Your task to perform on an android device: turn off notifications settings in the gmail app Image 0: 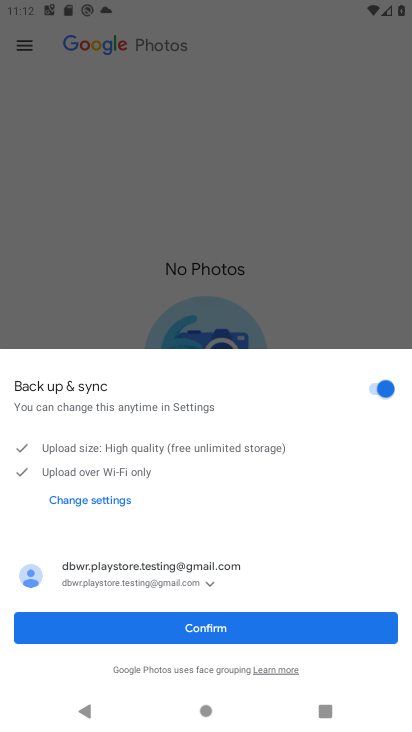
Step 0: click (235, 631)
Your task to perform on an android device: turn off notifications settings in the gmail app Image 1: 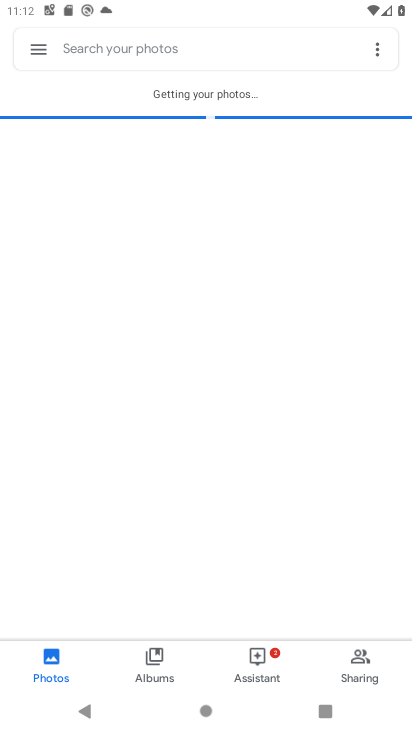
Step 1: click (33, 44)
Your task to perform on an android device: turn off notifications settings in the gmail app Image 2: 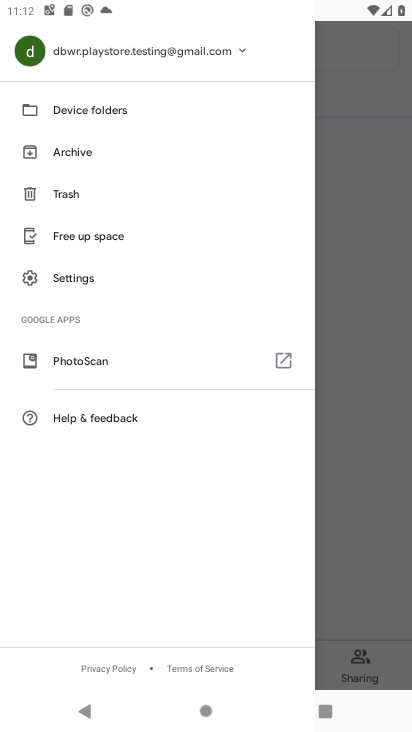
Step 2: click (99, 275)
Your task to perform on an android device: turn off notifications settings in the gmail app Image 3: 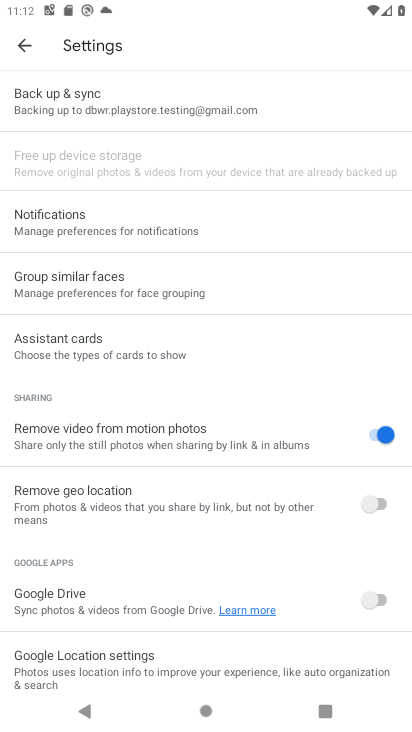
Step 3: click (86, 230)
Your task to perform on an android device: turn off notifications settings in the gmail app Image 4: 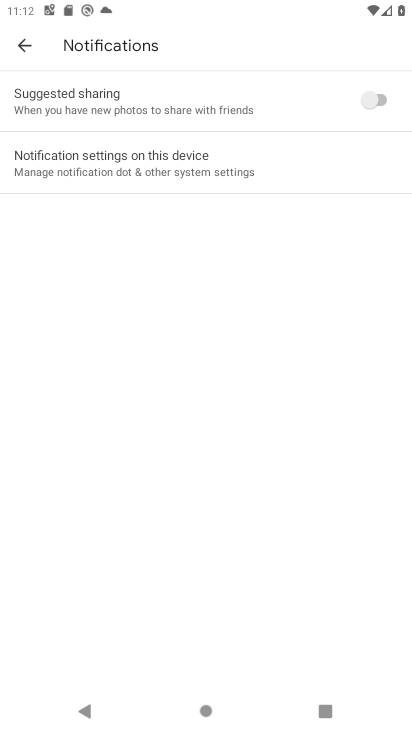
Step 4: click (305, 170)
Your task to perform on an android device: turn off notifications settings in the gmail app Image 5: 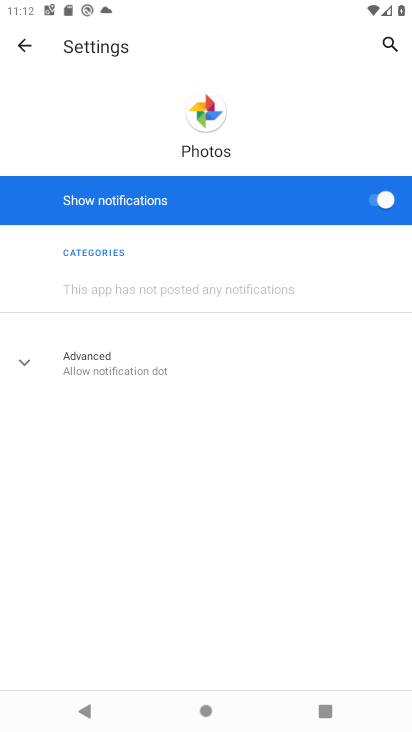
Step 5: click (372, 207)
Your task to perform on an android device: turn off notifications settings in the gmail app Image 6: 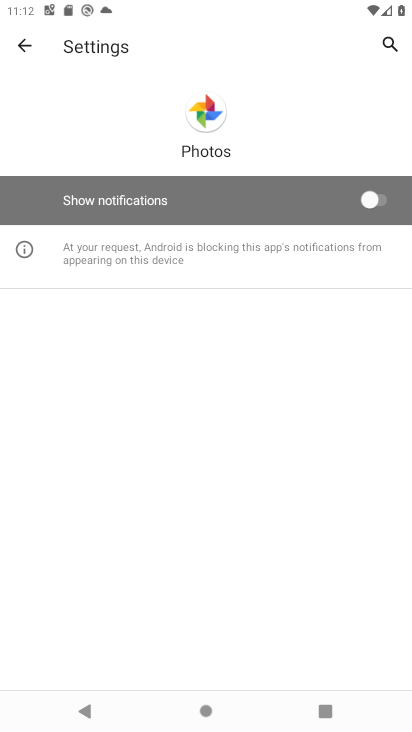
Step 6: task complete